Your task to perform on an android device: change notification settings in the gmail app Image 0: 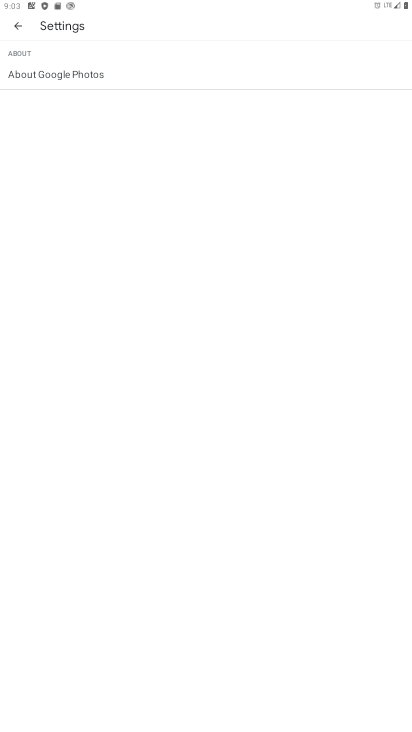
Step 0: press home button
Your task to perform on an android device: change notification settings in the gmail app Image 1: 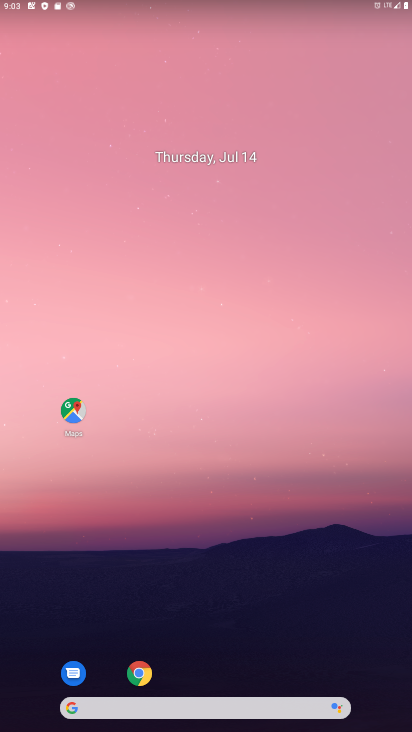
Step 1: drag from (191, 709) to (212, 51)
Your task to perform on an android device: change notification settings in the gmail app Image 2: 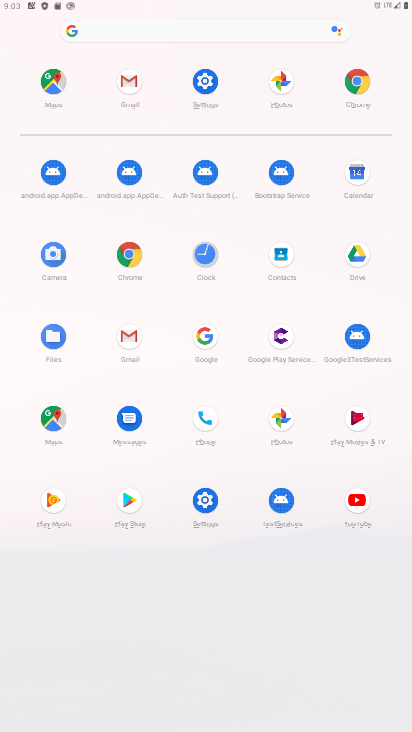
Step 2: click (129, 80)
Your task to perform on an android device: change notification settings in the gmail app Image 3: 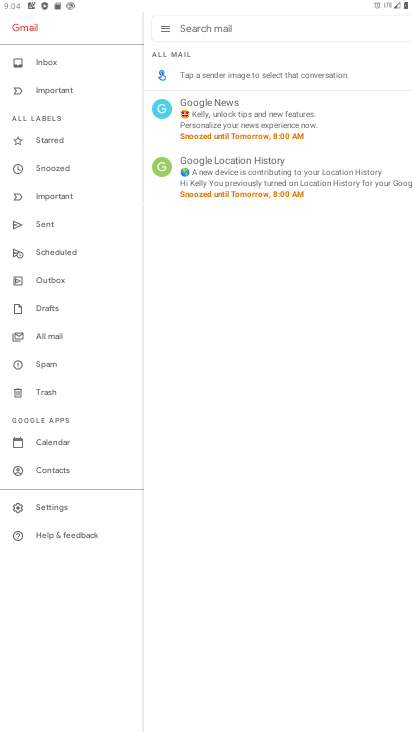
Step 3: click (54, 508)
Your task to perform on an android device: change notification settings in the gmail app Image 4: 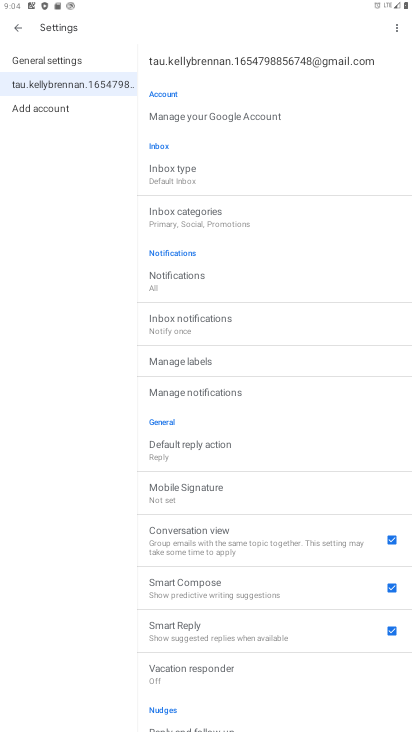
Step 4: click (172, 398)
Your task to perform on an android device: change notification settings in the gmail app Image 5: 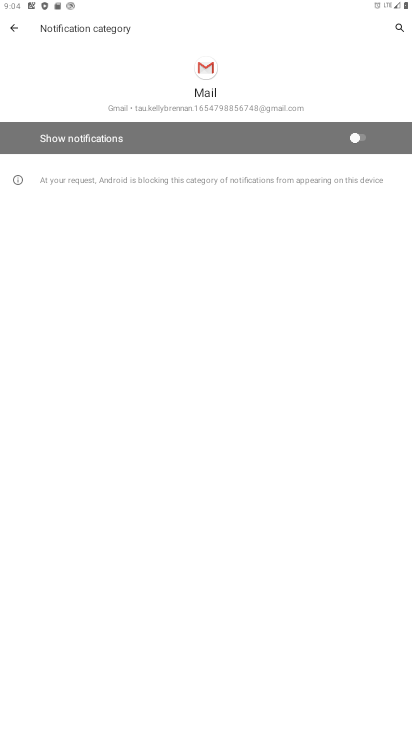
Step 5: click (353, 139)
Your task to perform on an android device: change notification settings in the gmail app Image 6: 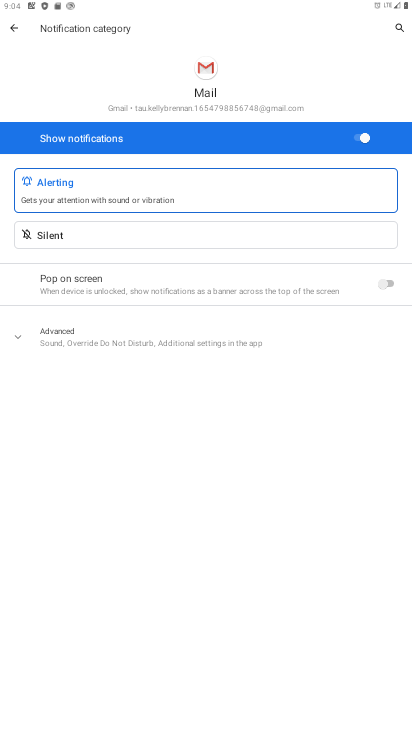
Step 6: task complete